Your task to perform on an android device: Go to Google Image 0: 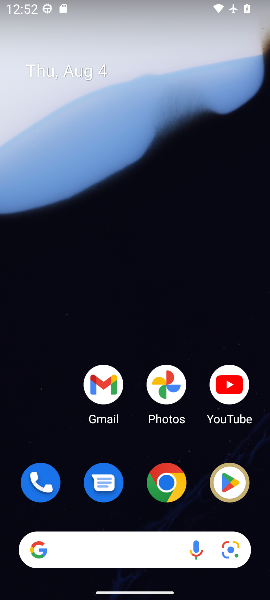
Step 0: drag from (137, 450) to (154, 114)
Your task to perform on an android device: Go to Google Image 1: 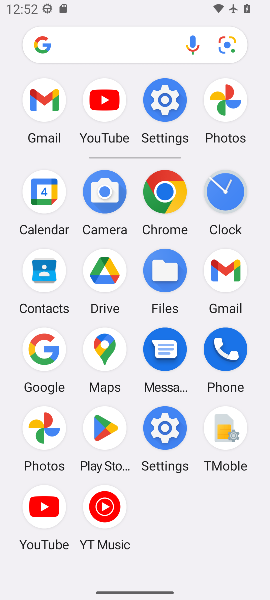
Step 1: click (48, 351)
Your task to perform on an android device: Go to Google Image 2: 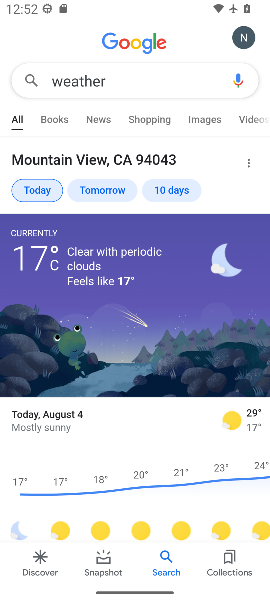
Step 2: task complete